Your task to perform on an android device: toggle data saver in the chrome app Image 0: 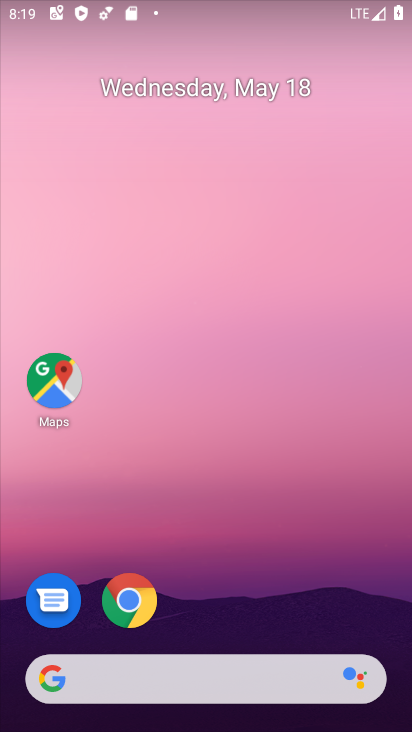
Step 0: click (138, 593)
Your task to perform on an android device: toggle data saver in the chrome app Image 1: 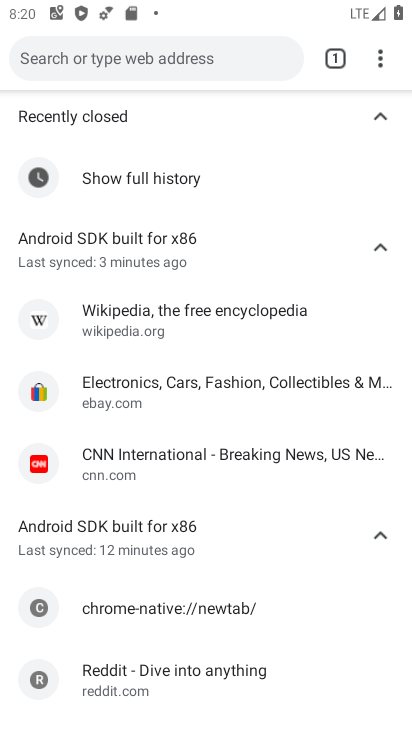
Step 1: drag from (383, 61) to (175, 490)
Your task to perform on an android device: toggle data saver in the chrome app Image 2: 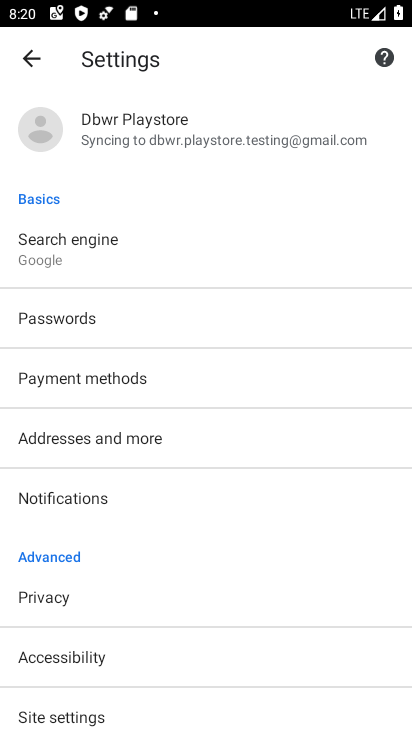
Step 2: drag from (265, 633) to (300, 137)
Your task to perform on an android device: toggle data saver in the chrome app Image 3: 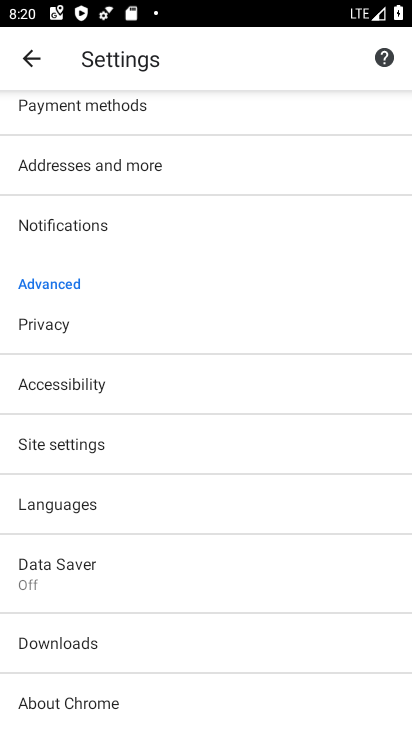
Step 3: click (86, 556)
Your task to perform on an android device: toggle data saver in the chrome app Image 4: 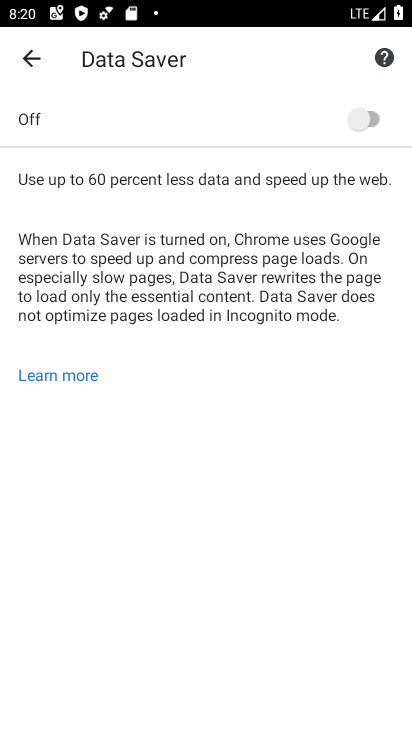
Step 4: click (392, 106)
Your task to perform on an android device: toggle data saver in the chrome app Image 5: 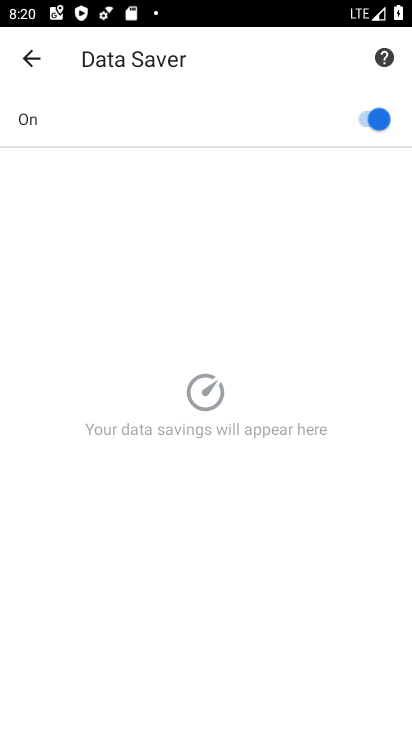
Step 5: task complete